Your task to perform on an android device: toggle priority inbox in the gmail app Image 0: 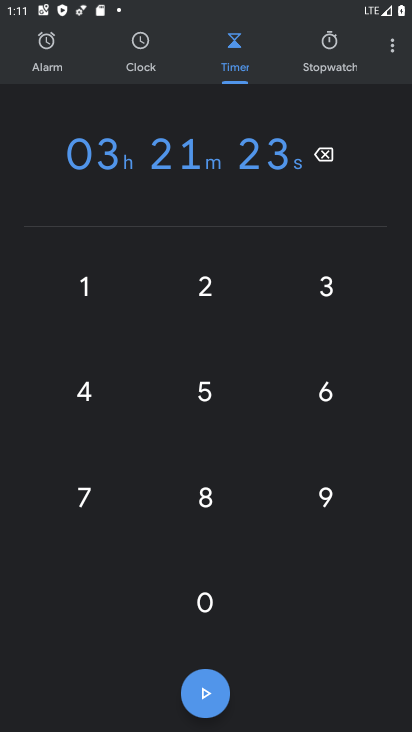
Step 0: press home button
Your task to perform on an android device: toggle priority inbox in the gmail app Image 1: 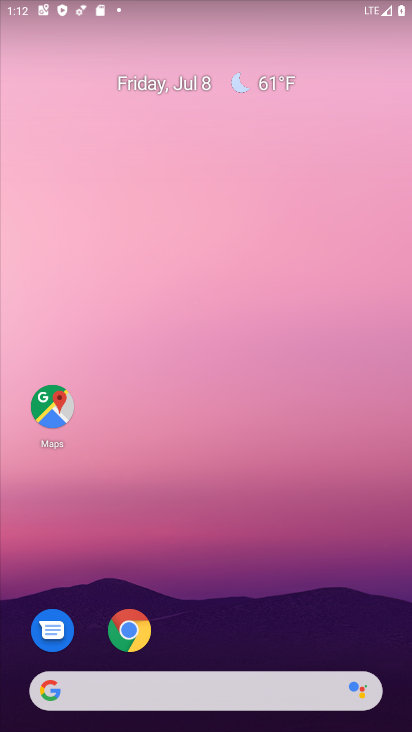
Step 1: drag from (396, 669) to (133, 44)
Your task to perform on an android device: toggle priority inbox in the gmail app Image 2: 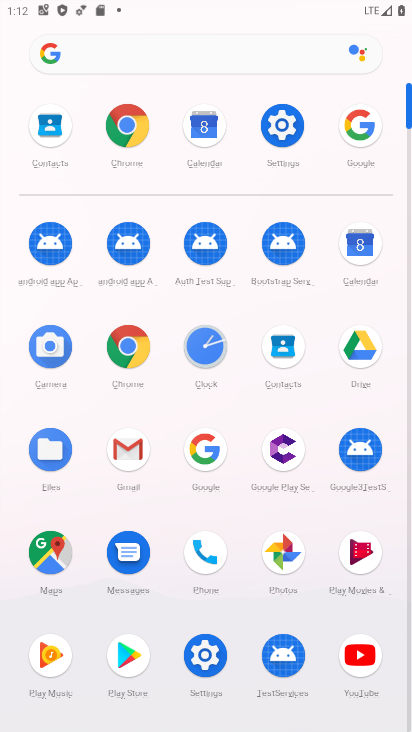
Step 2: click (134, 444)
Your task to perform on an android device: toggle priority inbox in the gmail app Image 3: 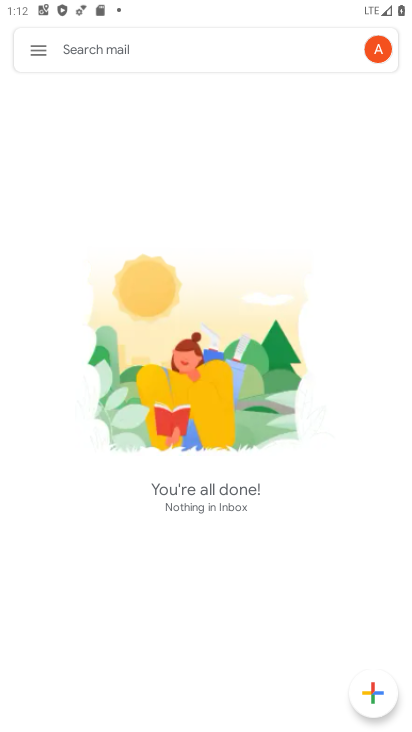
Step 3: click (39, 46)
Your task to perform on an android device: toggle priority inbox in the gmail app Image 4: 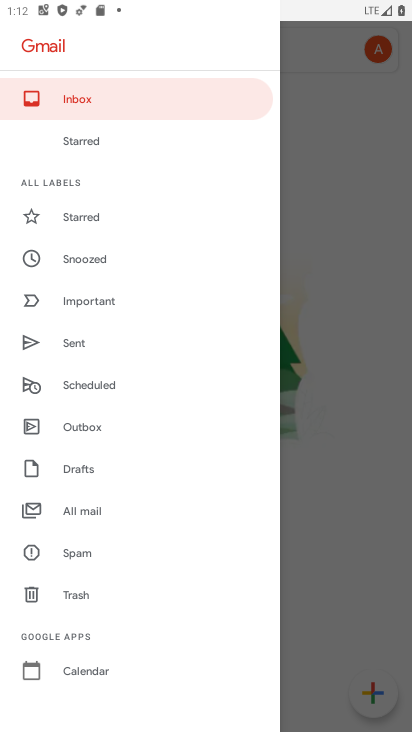
Step 4: drag from (76, 654) to (67, 155)
Your task to perform on an android device: toggle priority inbox in the gmail app Image 5: 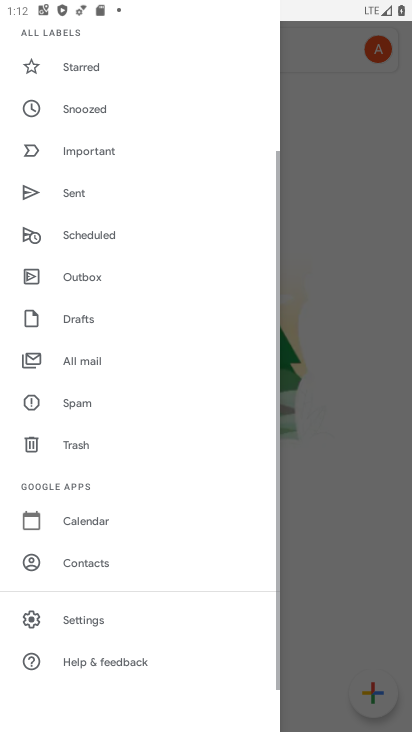
Step 5: click (48, 632)
Your task to perform on an android device: toggle priority inbox in the gmail app Image 6: 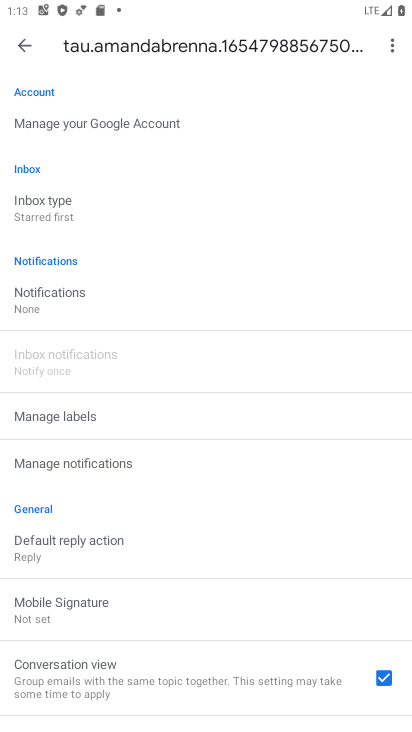
Step 6: click (69, 220)
Your task to perform on an android device: toggle priority inbox in the gmail app Image 7: 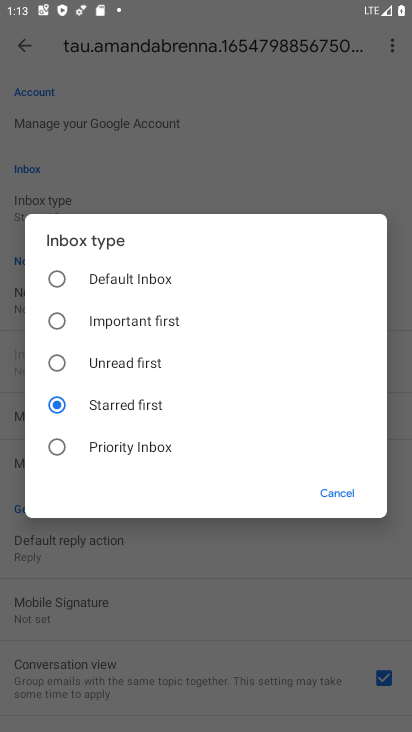
Step 7: click (59, 285)
Your task to perform on an android device: toggle priority inbox in the gmail app Image 8: 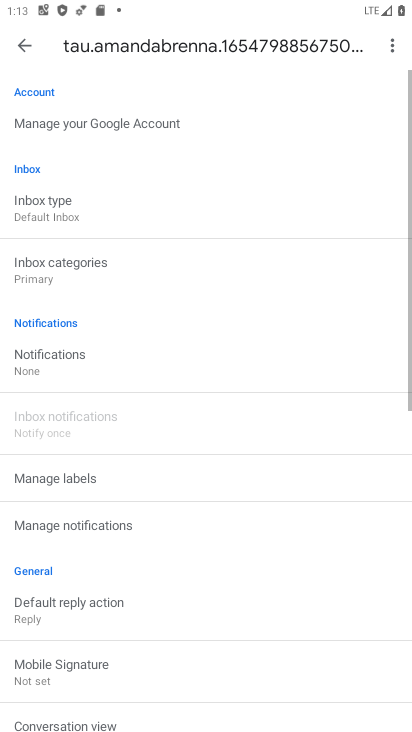
Step 8: task complete